Your task to perform on an android device: Turn off the flashlight Image 0: 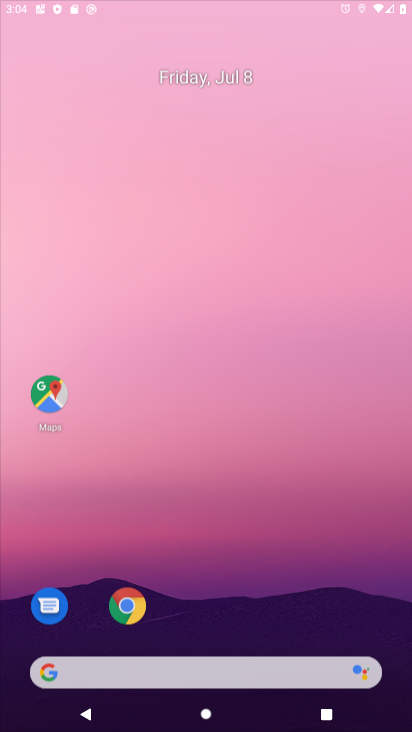
Step 0: click (250, 63)
Your task to perform on an android device: Turn off the flashlight Image 1: 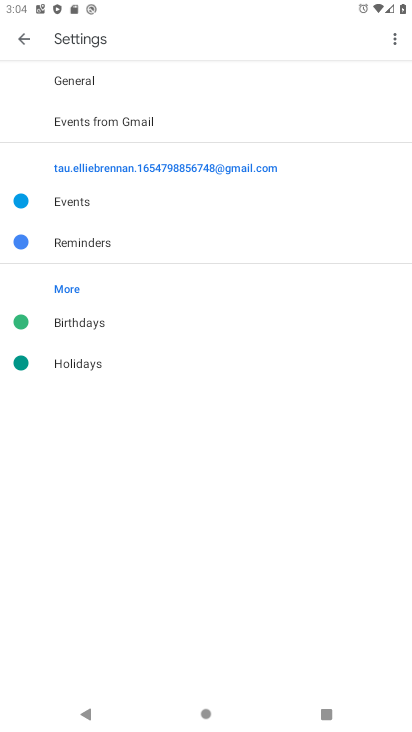
Step 1: press home button
Your task to perform on an android device: Turn off the flashlight Image 2: 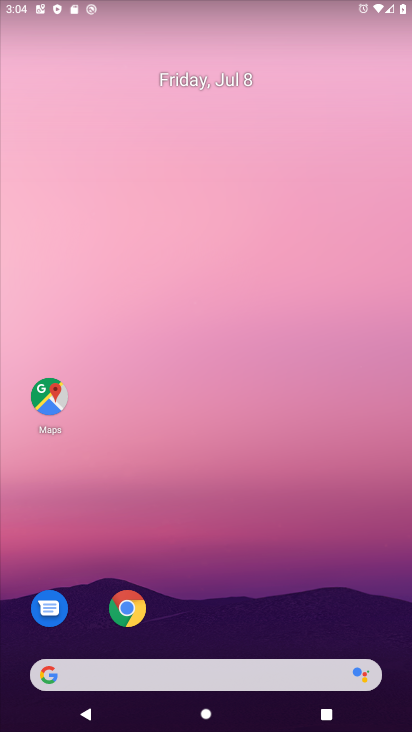
Step 2: click (153, 469)
Your task to perform on an android device: Turn off the flashlight Image 3: 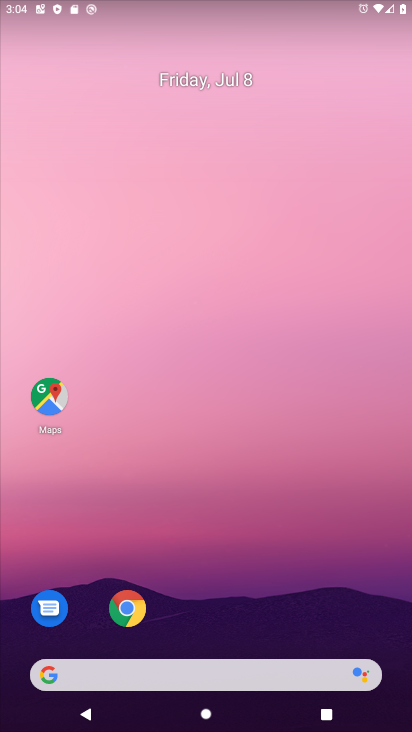
Step 3: task complete